Your task to perform on an android device: Open settings on Google Maps Image 0: 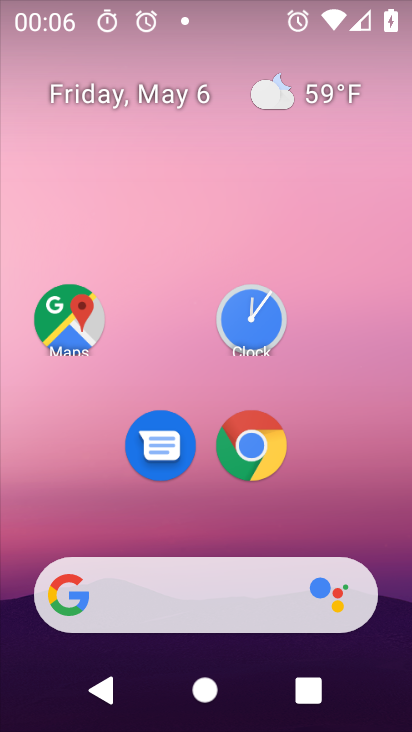
Step 0: click (76, 345)
Your task to perform on an android device: Open settings on Google Maps Image 1: 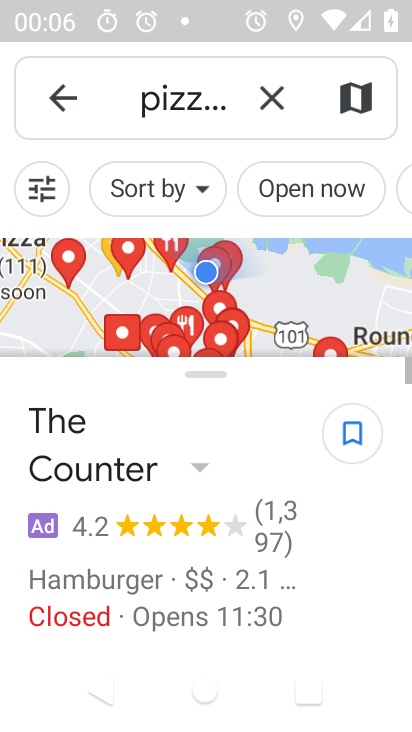
Step 1: click (54, 109)
Your task to perform on an android device: Open settings on Google Maps Image 2: 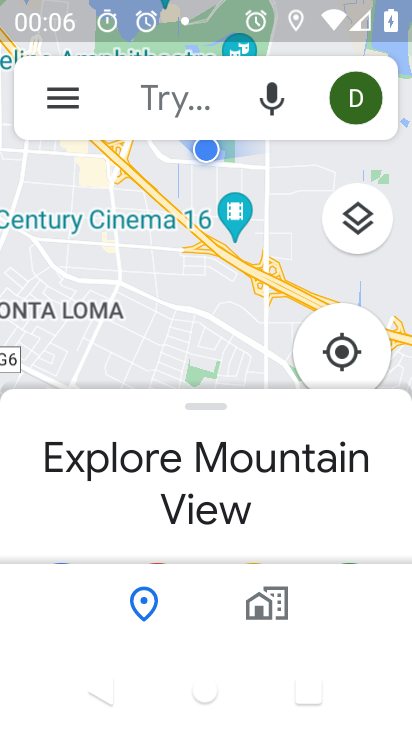
Step 2: click (68, 97)
Your task to perform on an android device: Open settings on Google Maps Image 3: 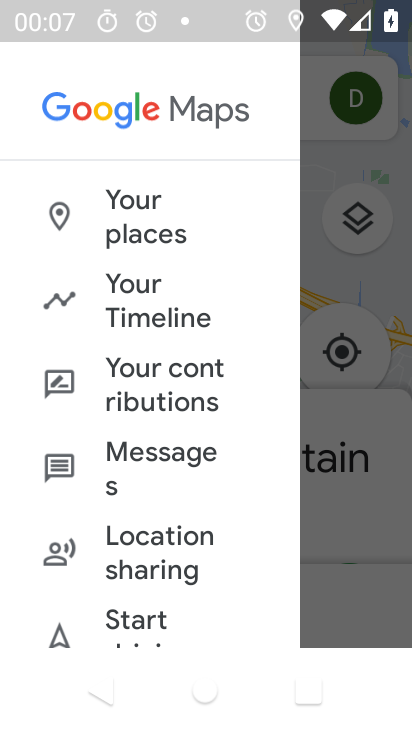
Step 3: drag from (167, 631) to (170, 162)
Your task to perform on an android device: Open settings on Google Maps Image 4: 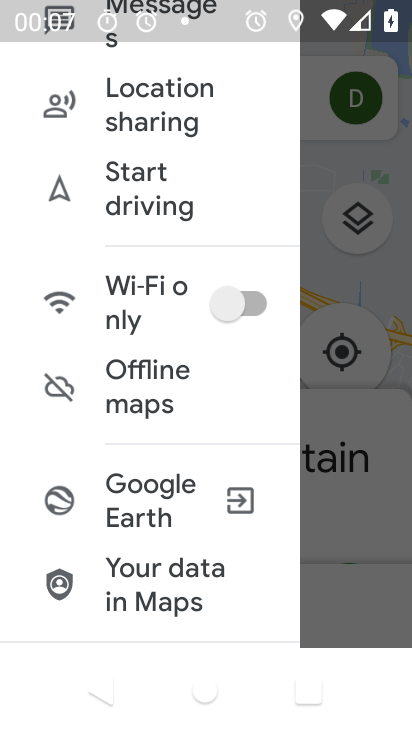
Step 4: drag from (166, 517) to (189, 41)
Your task to perform on an android device: Open settings on Google Maps Image 5: 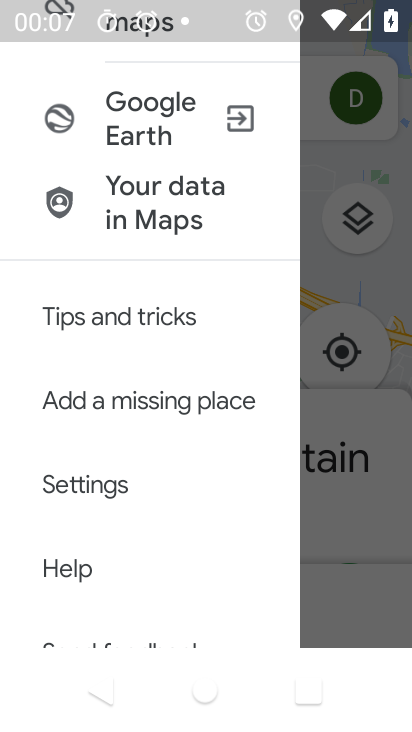
Step 5: click (110, 486)
Your task to perform on an android device: Open settings on Google Maps Image 6: 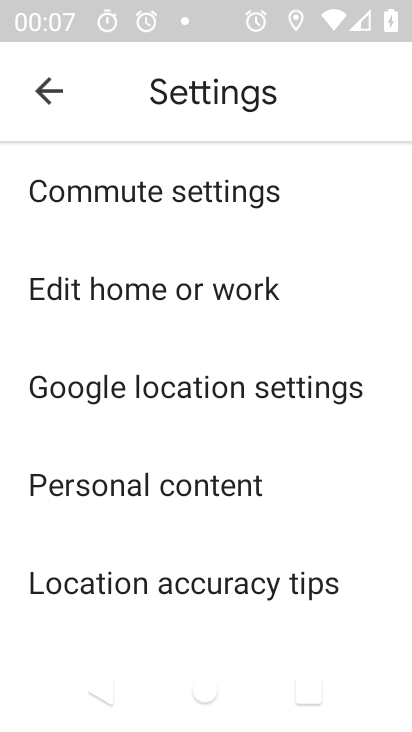
Step 6: task complete